Your task to perform on an android device: Go to Google Image 0: 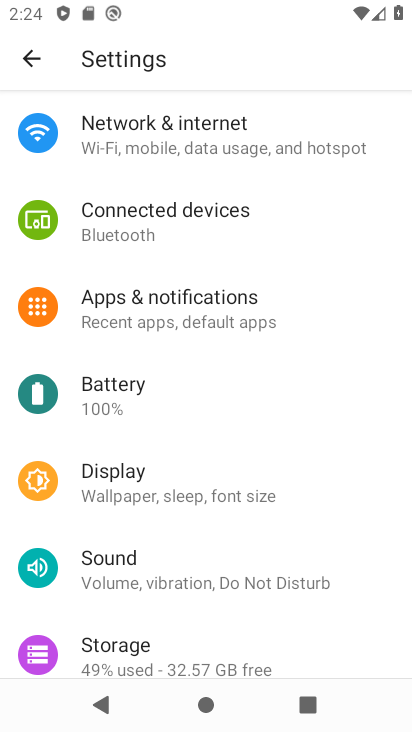
Step 0: press home button
Your task to perform on an android device: Go to Google Image 1: 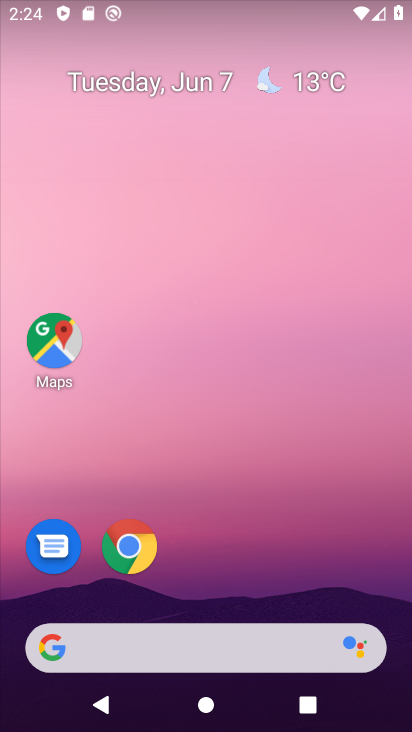
Step 1: click (192, 656)
Your task to perform on an android device: Go to Google Image 2: 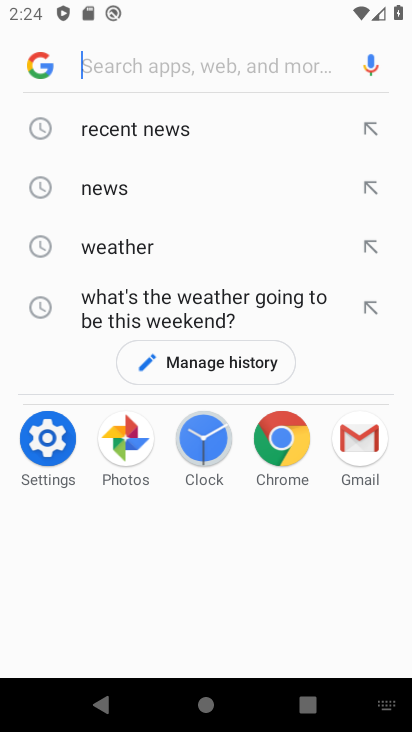
Step 2: task complete